Your task to perform on an android device: Clear the cart on ebay.com. Search for "apple airpods" on ebay.com, select the first entry, add it to the cart, then select checkout. Image 0: 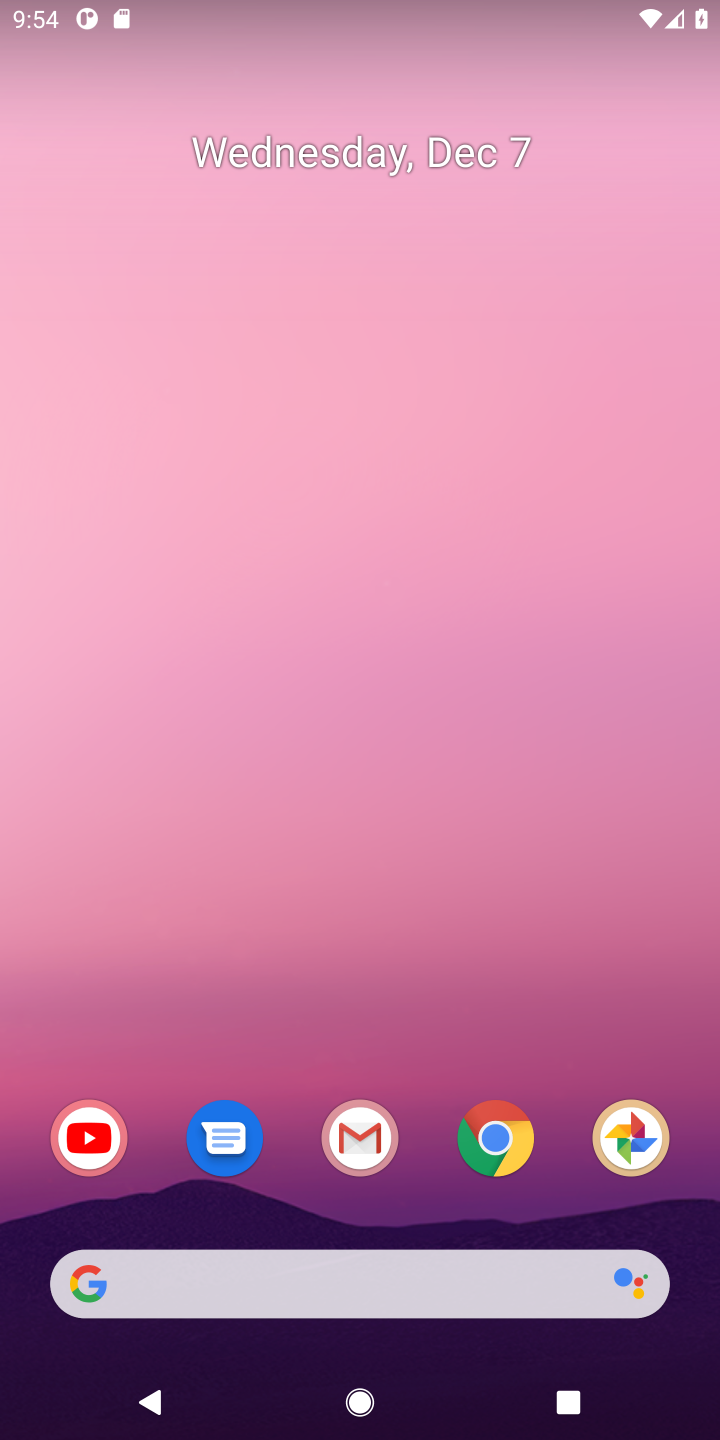
Step 0: click (140, 1276)
Your task to perform on an android device: Clear the cart on ebay.com. Search for "apple airpods" on ebay.com, select the first entry, add it to the cart, then select checkout. Image 1: 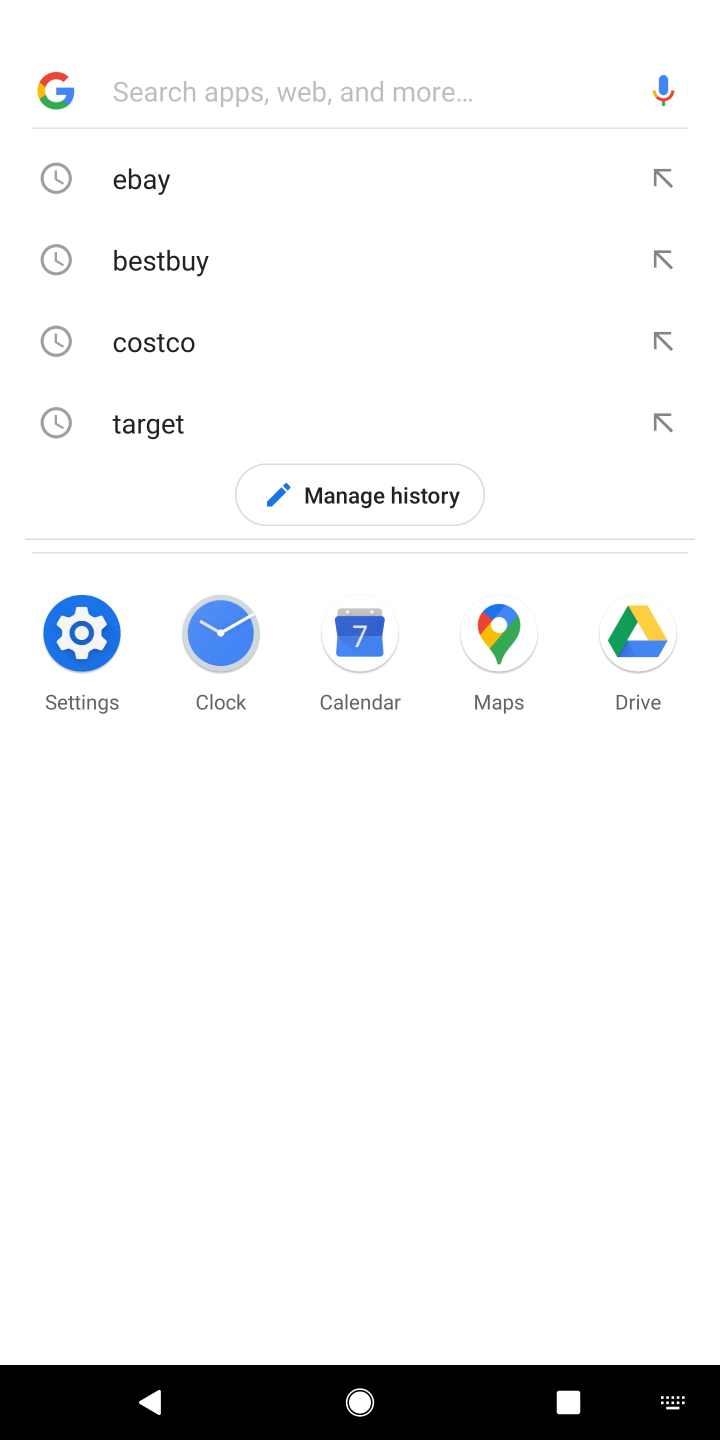
Step 1: type "ebay.com"
Your task to perform on an android device: Clear the cart on ebay.com. Search for "apple airpods" on ebay.com, select the first entry, add it to the cart, then select checkout. Image 2: 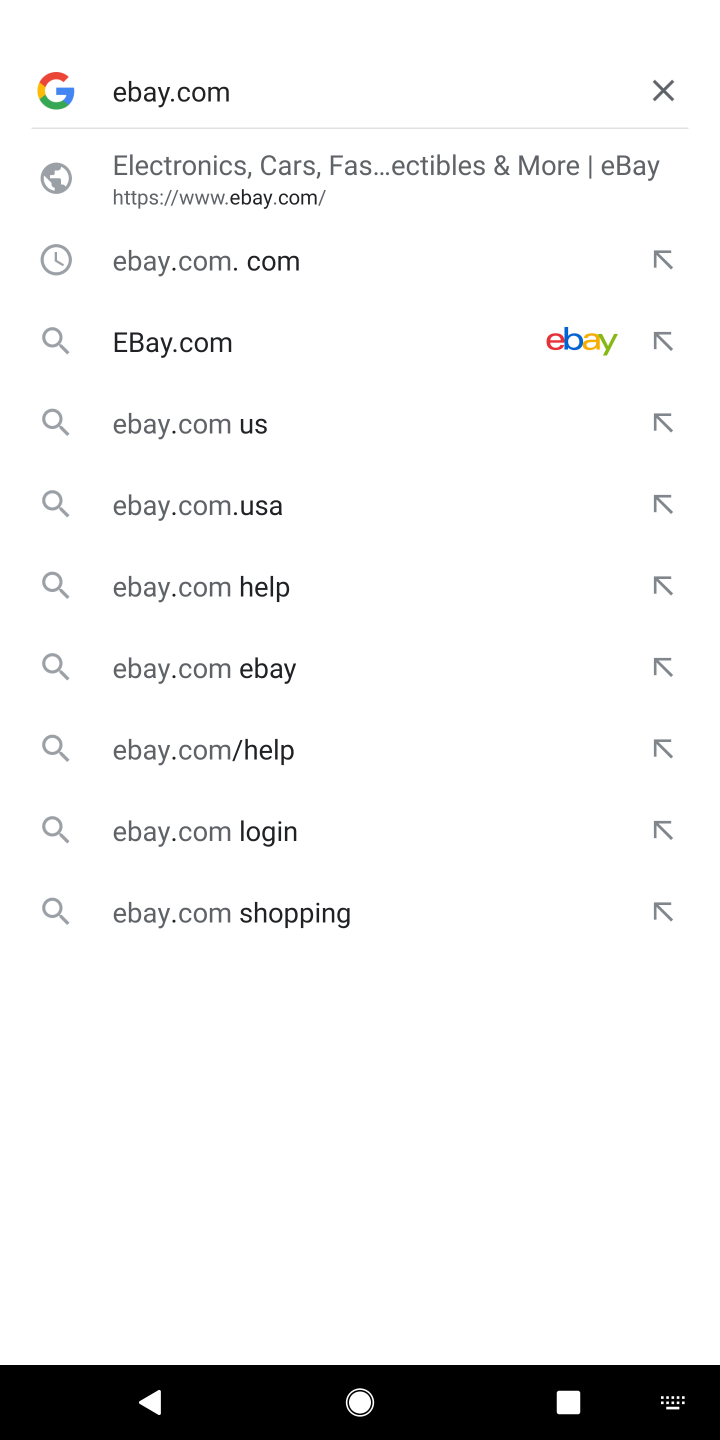
Step 2: press enter
Your task to perform on an android device: Clear the cart on ebay.com. Search for "apple airpods" on ebay.com, select the first entry, add it to the cart, then select checkout. Image 3: 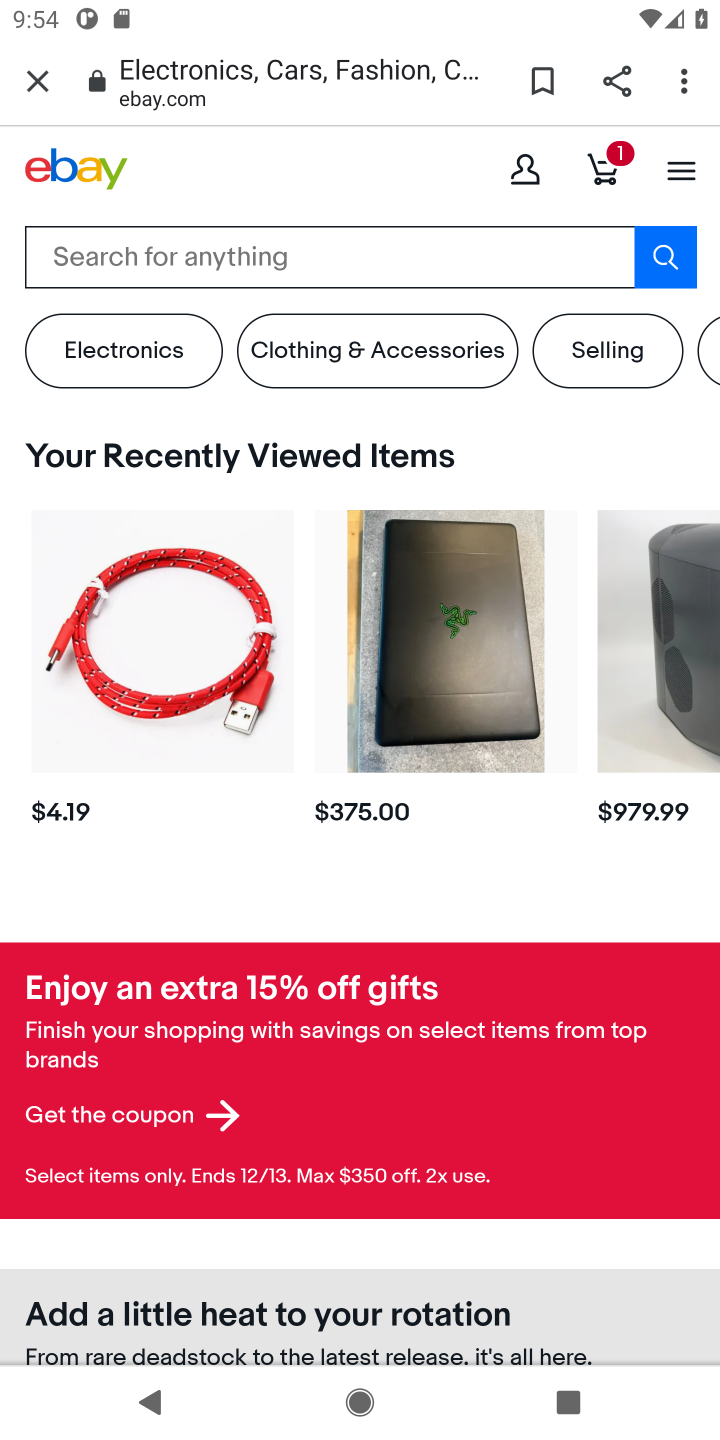
Step 3: click (608, 156)
Your task to perform on an android device: Clear the cart on ebay.com. Search for "apple airpods" on ebay.com, select the first entry, add it to the cart, then select checkout. Image 4: 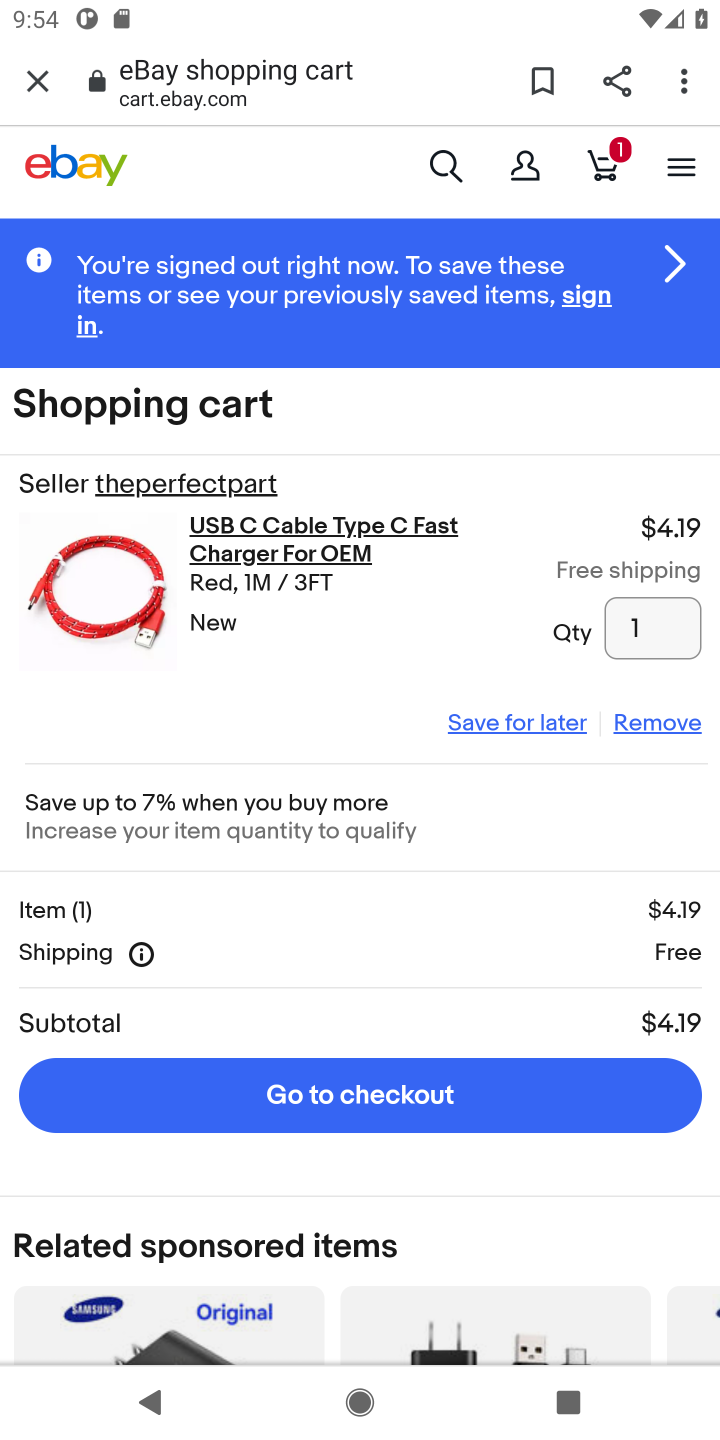
Step 4: click (637, 705)
Your task to perform on an android device: Clear the cart on ebay.com. Search for "apple airpods" on ebay.com, select the first entry, add it to the cart, then select checkout. Image 5: 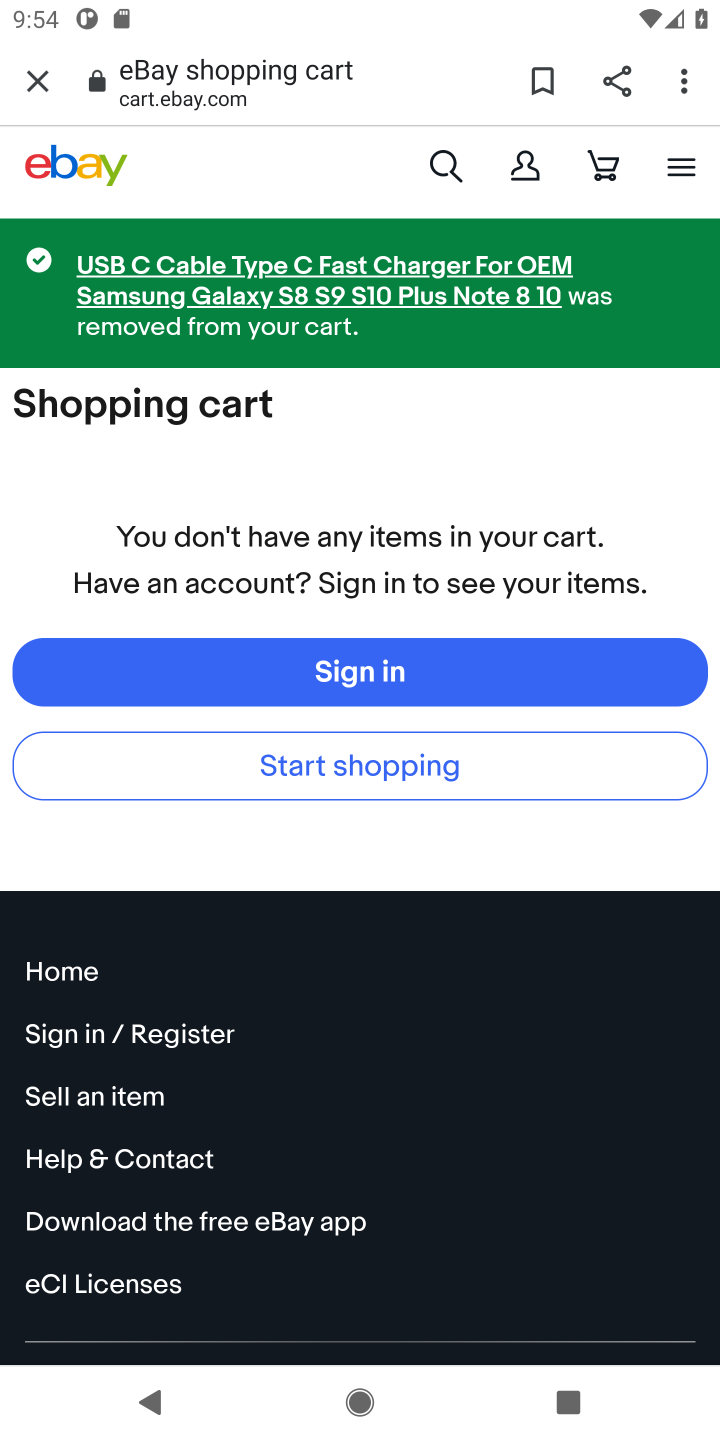
Step 5: click (442, 152)
Your task to perform on an android device: Clear the cart on ebay.com. Search for "apple airpods" on ebay.com, select the first entry, add it to the cart, then select checkout. Image 6: 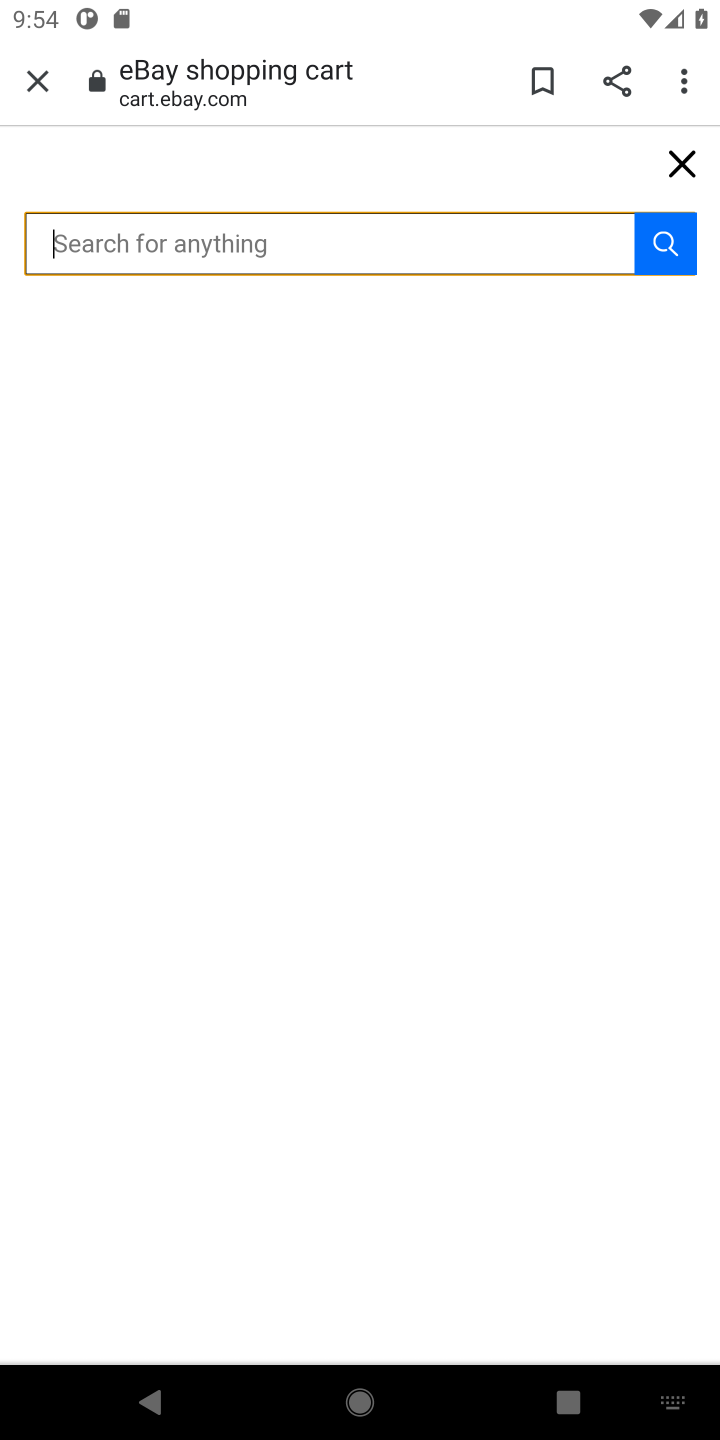
Step 6: type "apple airpods"
Your task to perform on an android device: Clear the cart on ebay.com. Search for "apple airpods" on ebay.com, select the first entry, add it to the cart, then select checkout. Image 7: 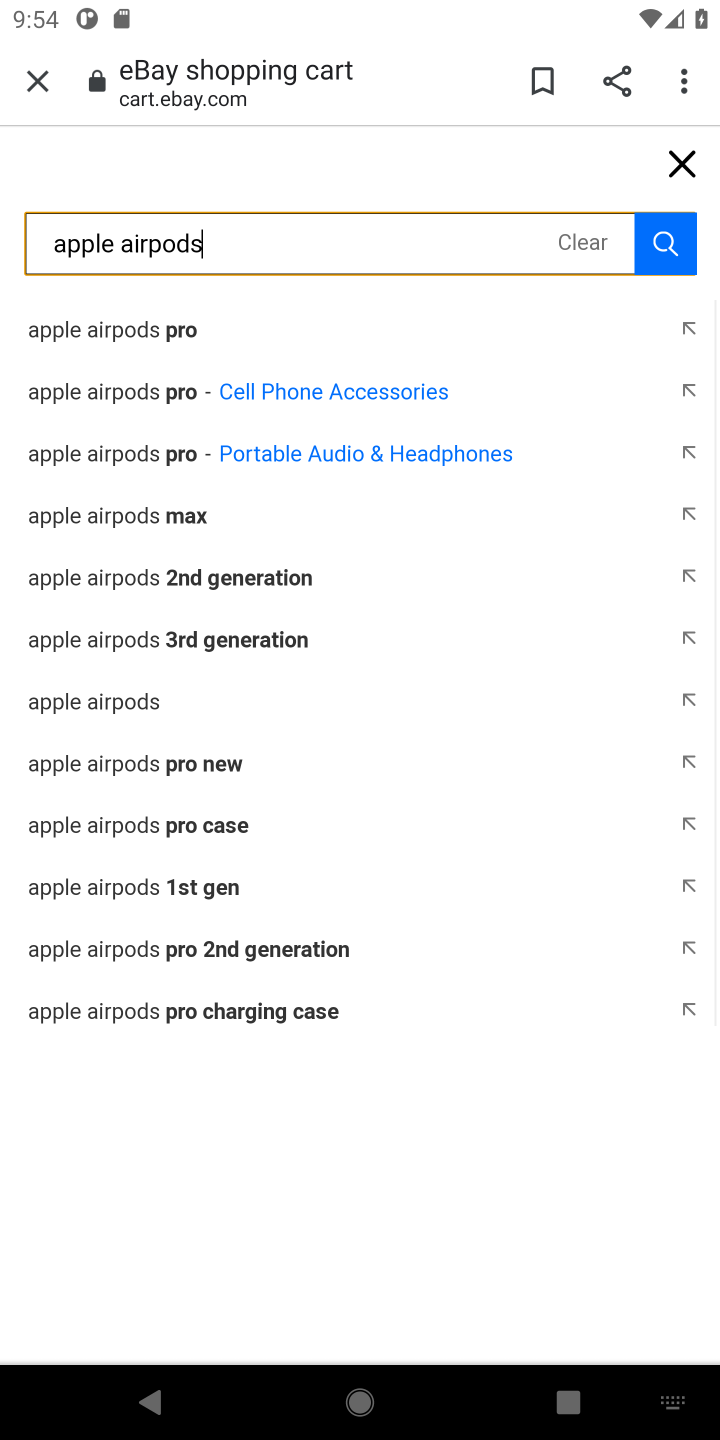
Step 7: press enter
Your task to perform on an android device: Clear the cart on ebay.com. Search for "apple airpods" on ebay.com, select the first entry, add it to the cart, then select checkout. Image 8: 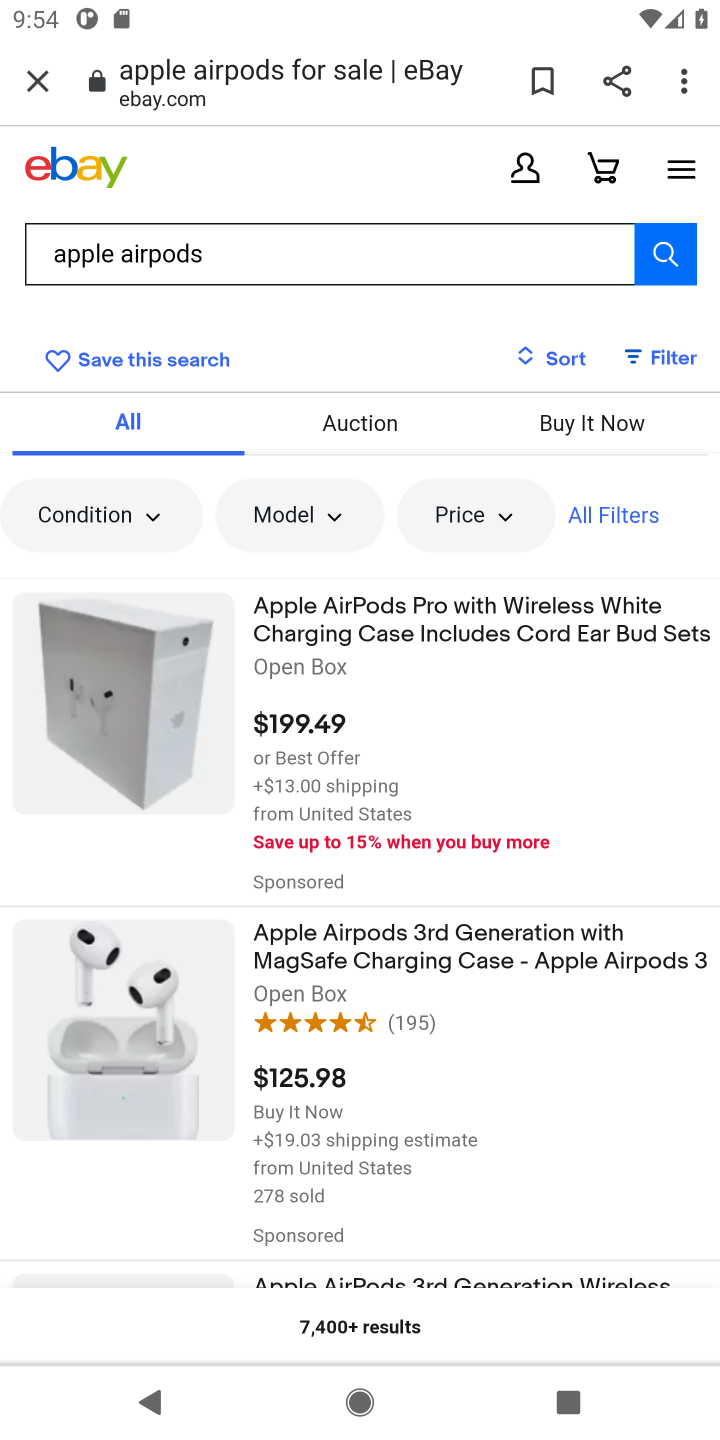
Step 8: click (362, 626)
Your task to perform on an android device: Clear the cart on ebay.com. Search for "apple airpods" on ebay.com, select the first entry, add it to the cart, then select checkout. Image 9: 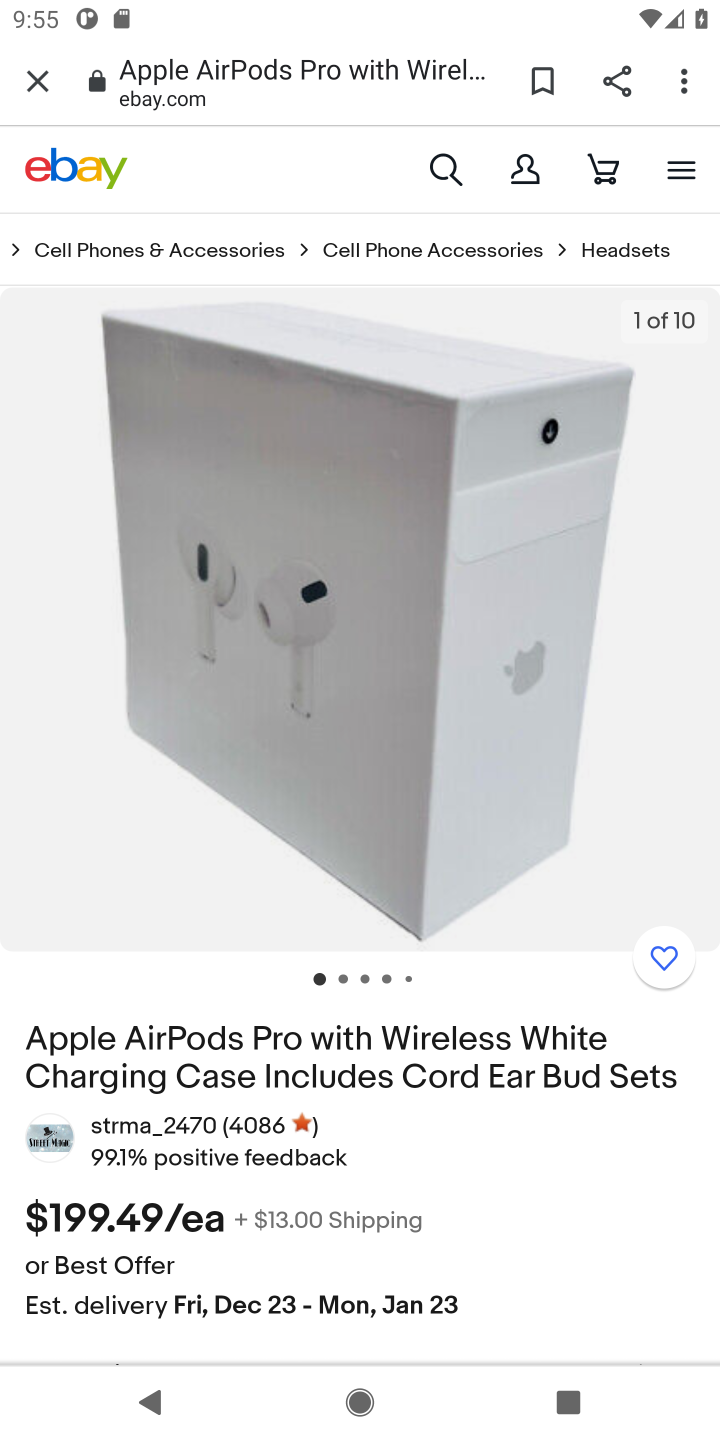
Step 9: drag from (392, 1049) to (390, 353)
Your task to perform on an android device: Clear the cart on ebay.com. Search for "apple airpods" on ebay.com, select the first entry, add it to the cart, then select checkout. Image 10: 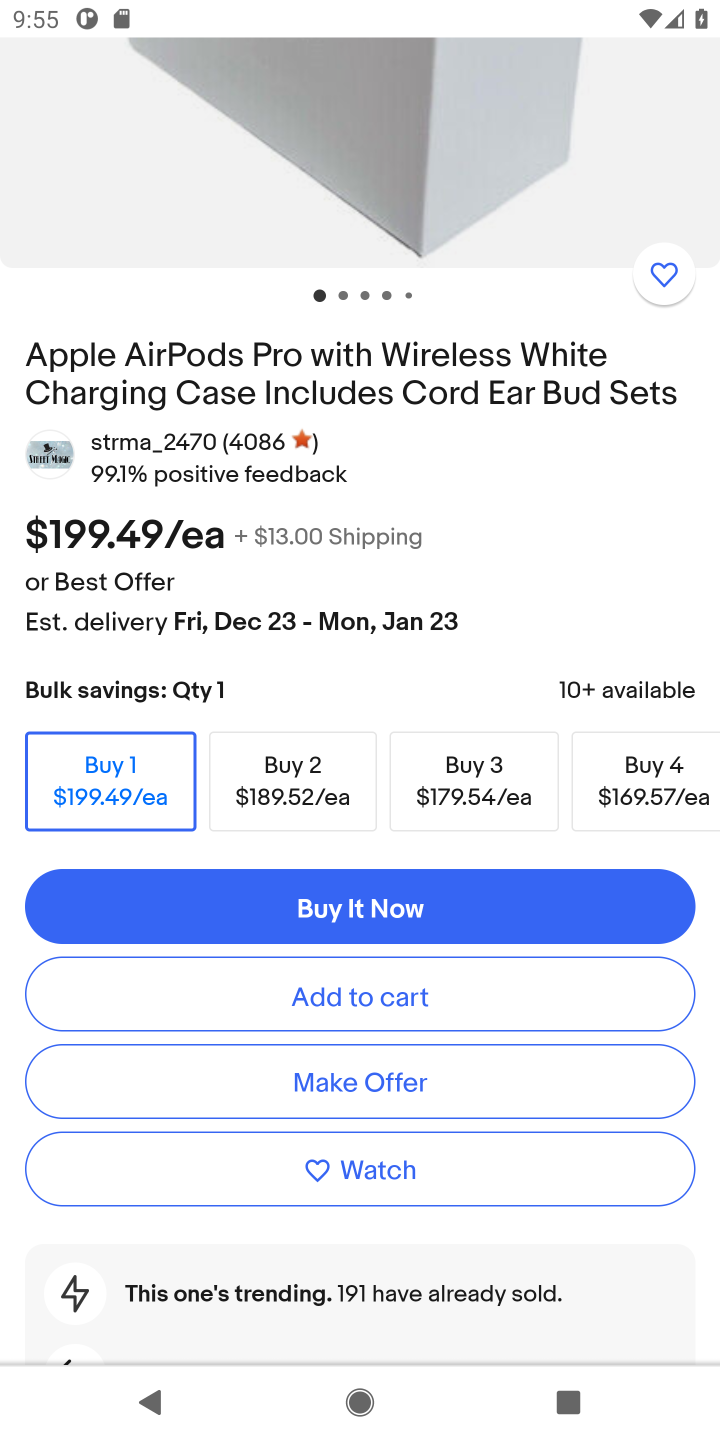
Step 10: click (370, 999)
Your task to perform on an android device: Clear the cart on ebay.com. Search for "apple airpods" on ebay.com, select the first entry, add it to the cart, then select checkout. Image 11: 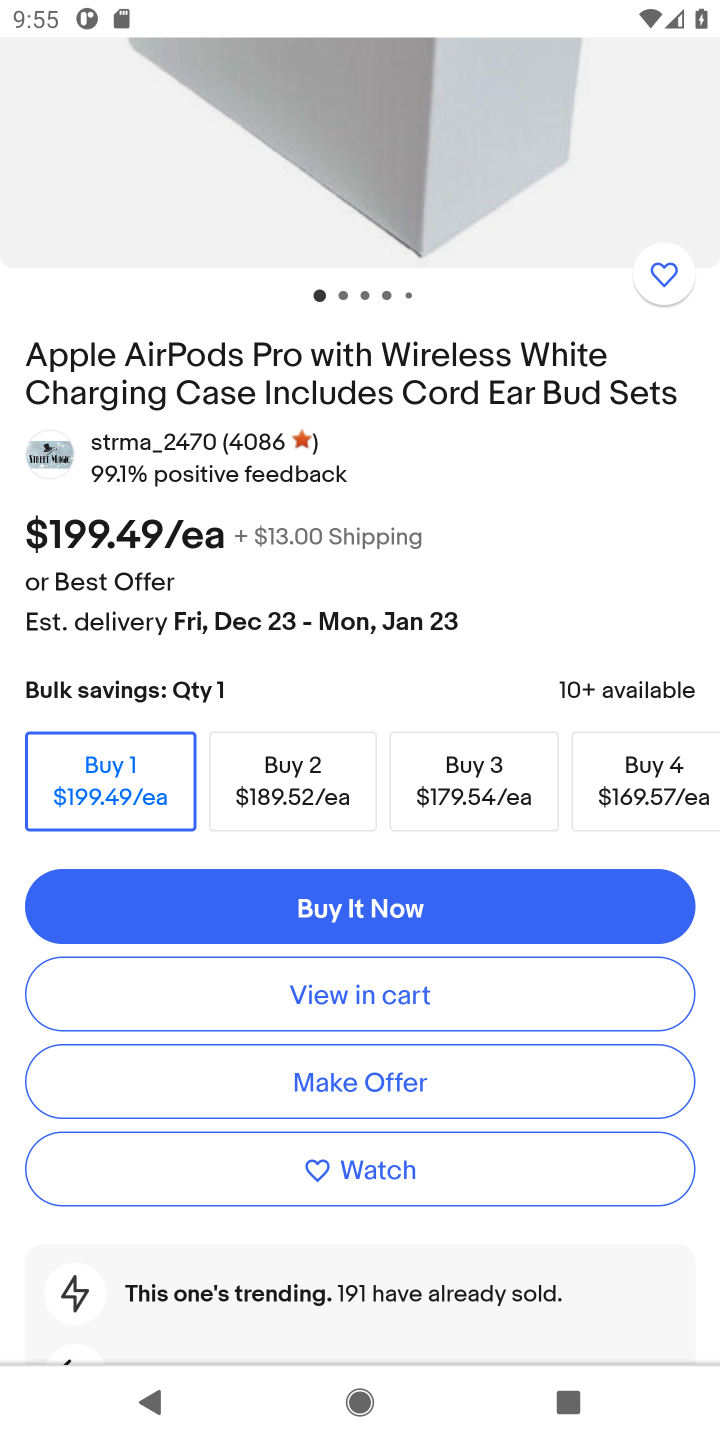
Step 11: task complete